Your task to perform on an android device: What's the weather going to be this weekend? Image 0: 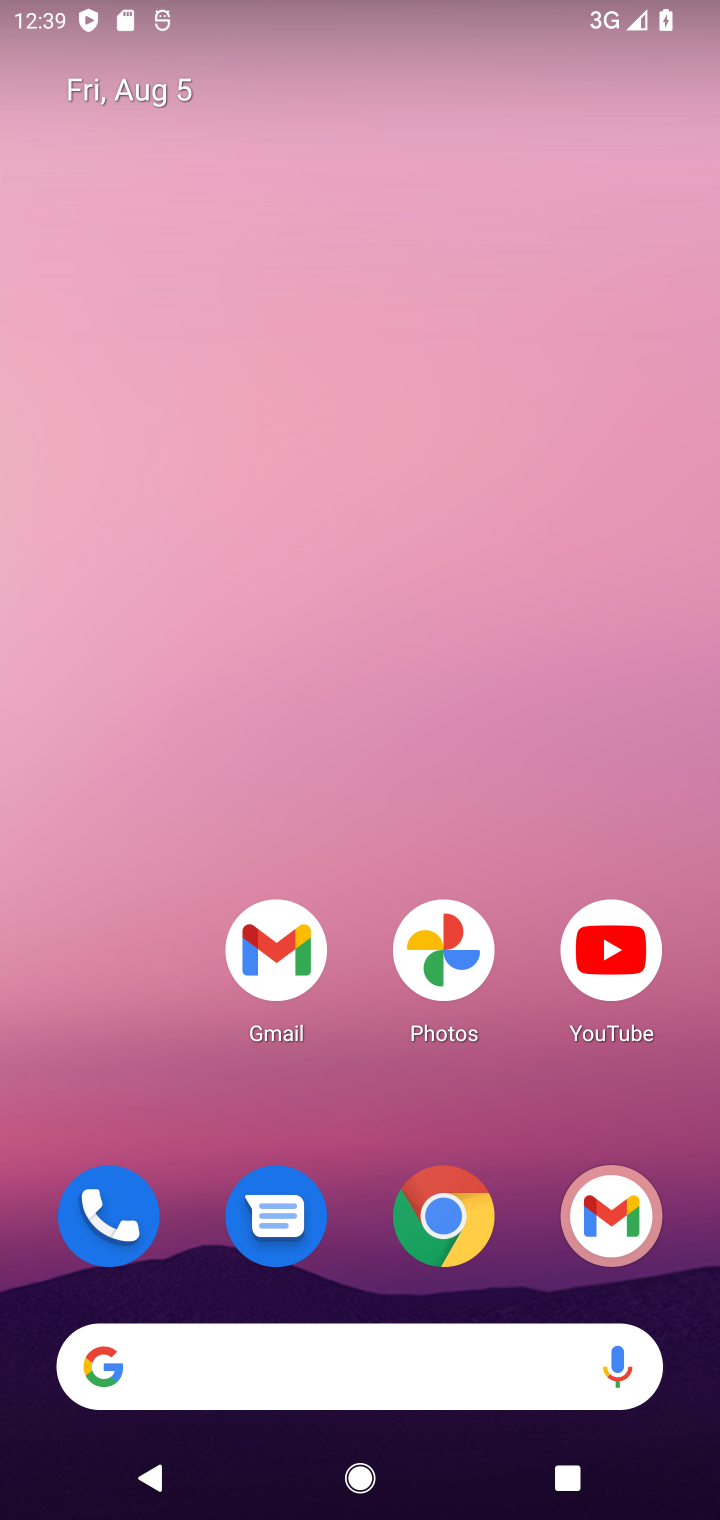
Step 0: drag from (320, 1343) to (469, 25)
Your task to perform on an android device: What's the weather going to be this weekend? Image 1: 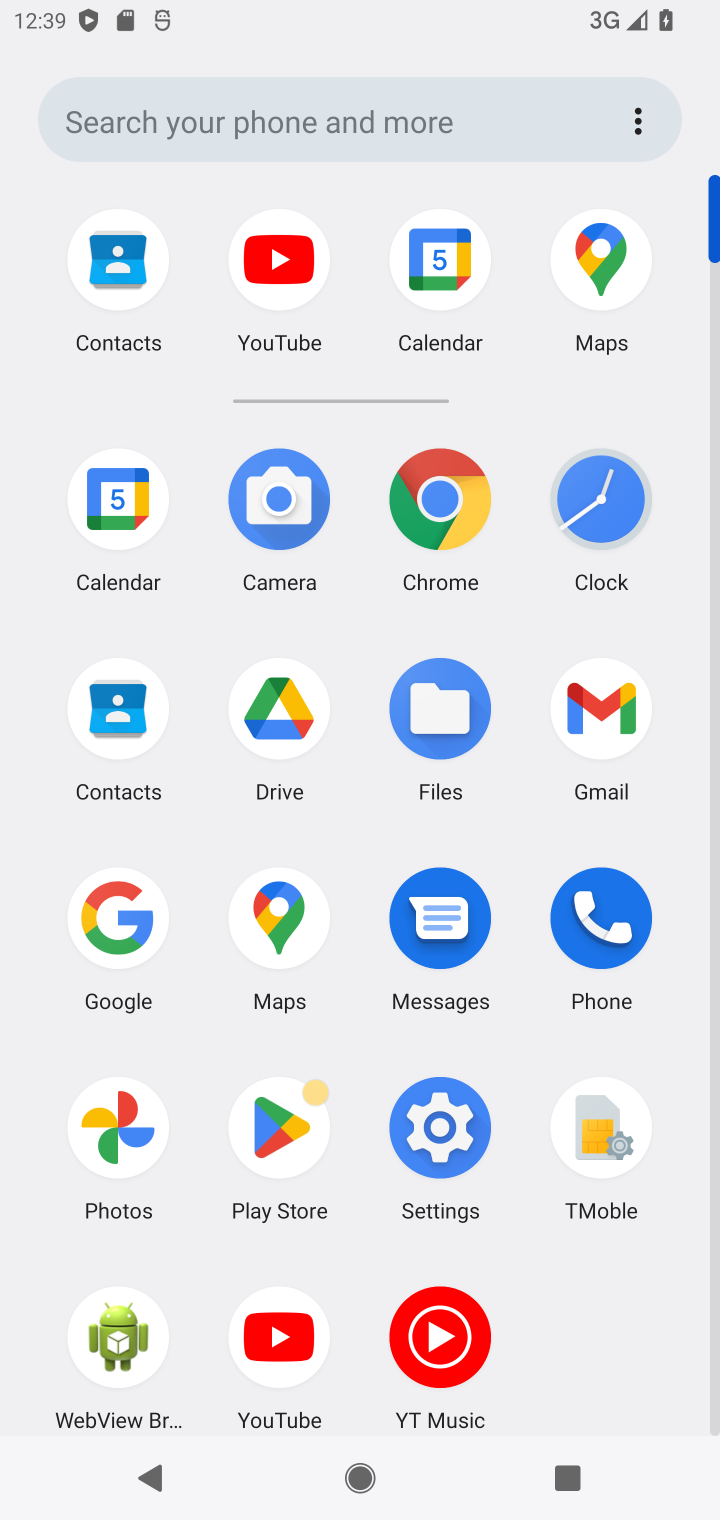
Step 1: click (431, 486)
Your task to perform on an android device: What's the weather going to be this weekend? Image 2: 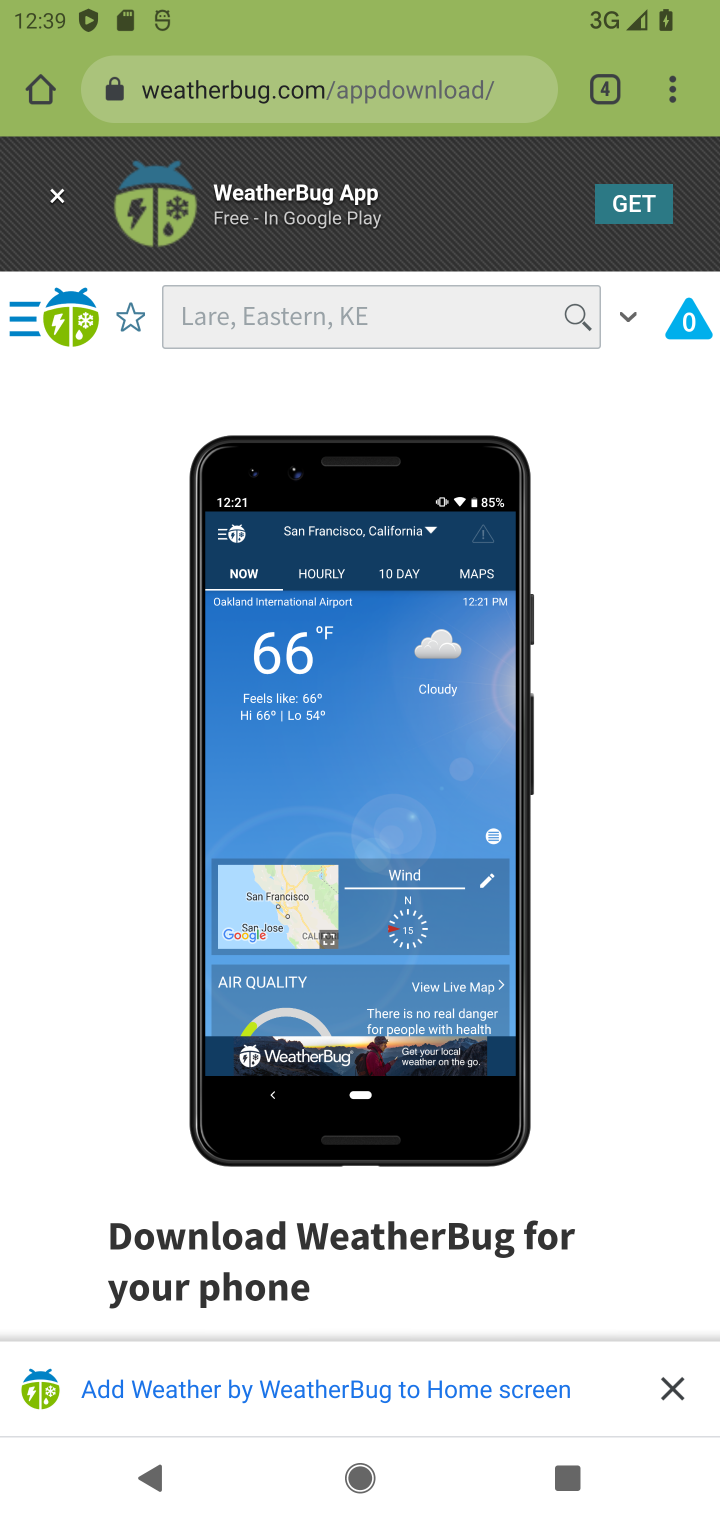
Step 2: click (278, 96)
Your task to perform on an android device: What's the weather going to be this weekend? Image 3: 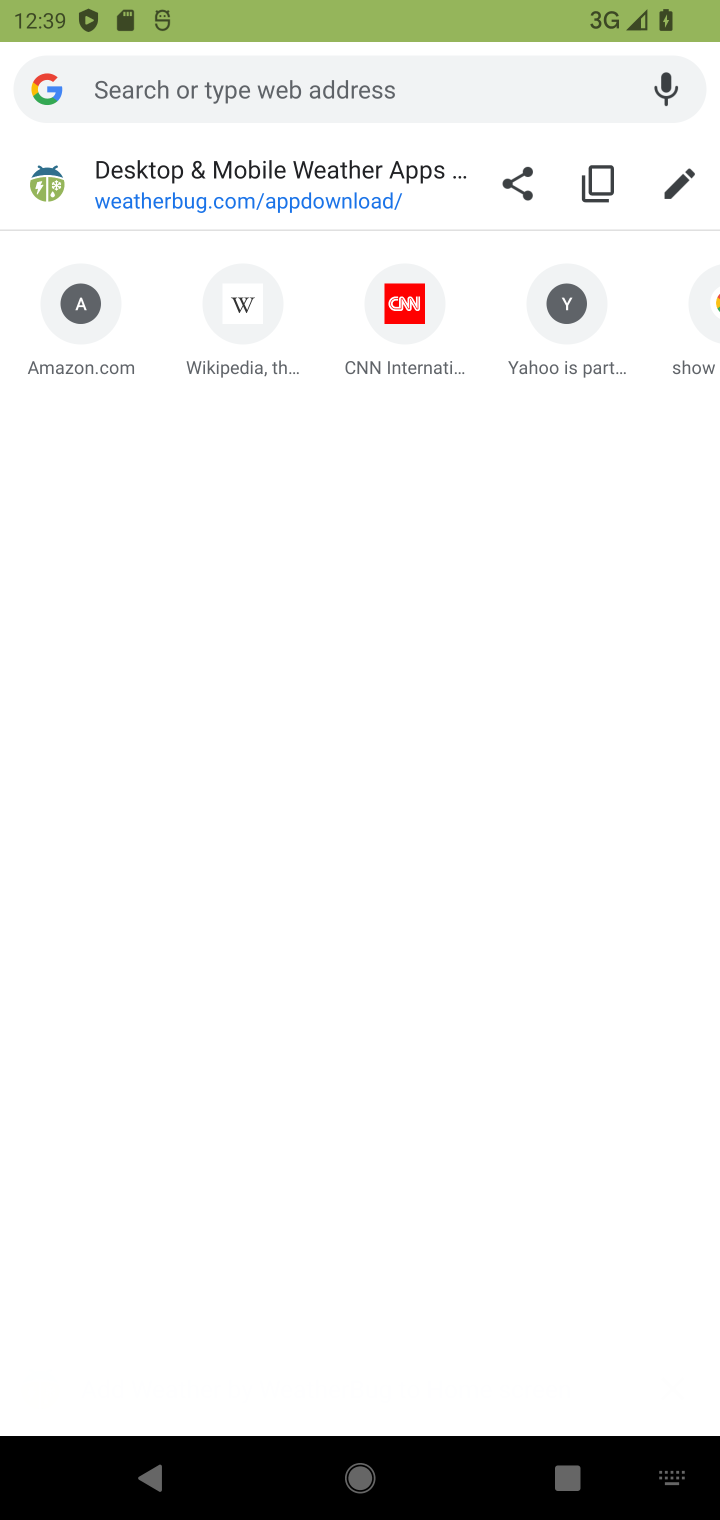
Step 3: type "weather going to be this weekend"
Your task to perform on an android device: What's the weather going to be this weekend? Image 4: 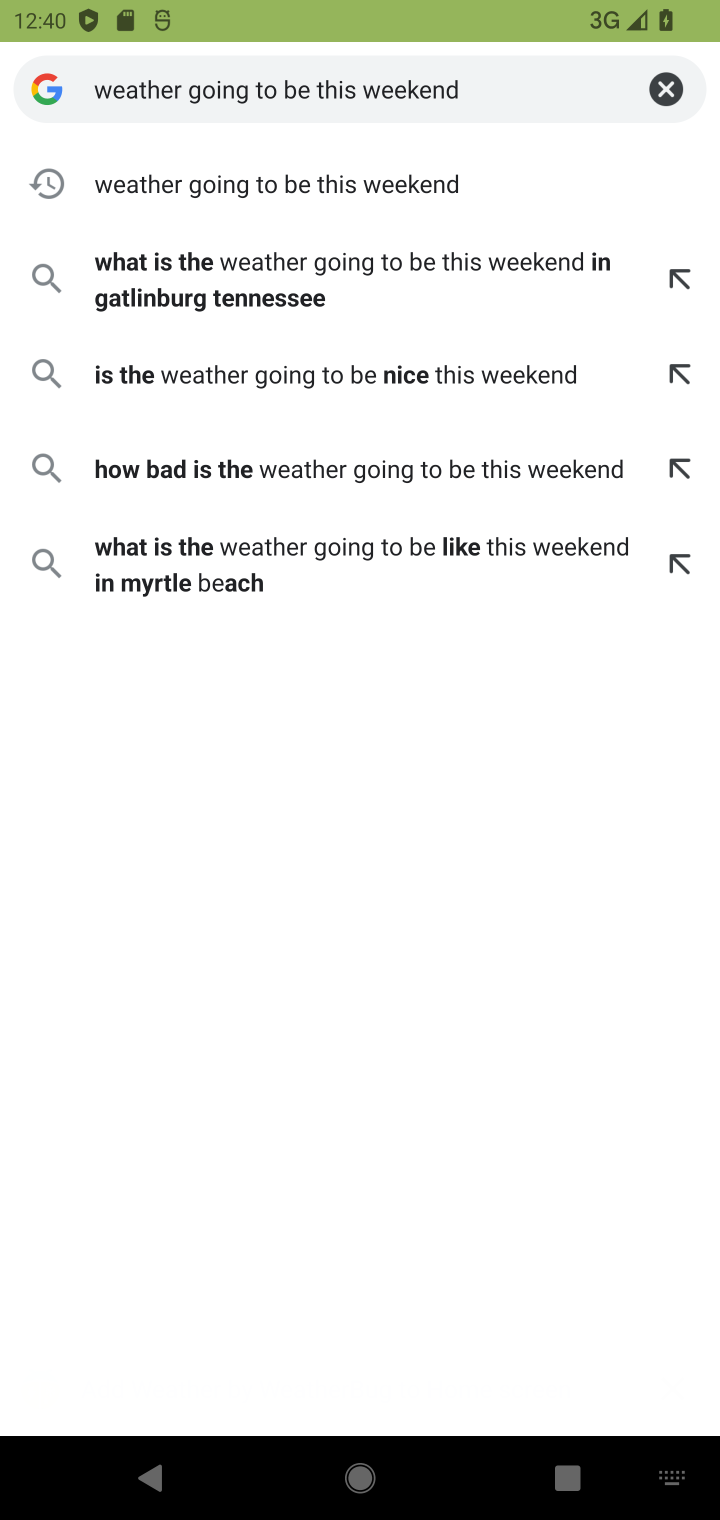
Step 4: click (281, 171)
Your task to perform on an android device: What's the weather going to be this weekend? Image 5: 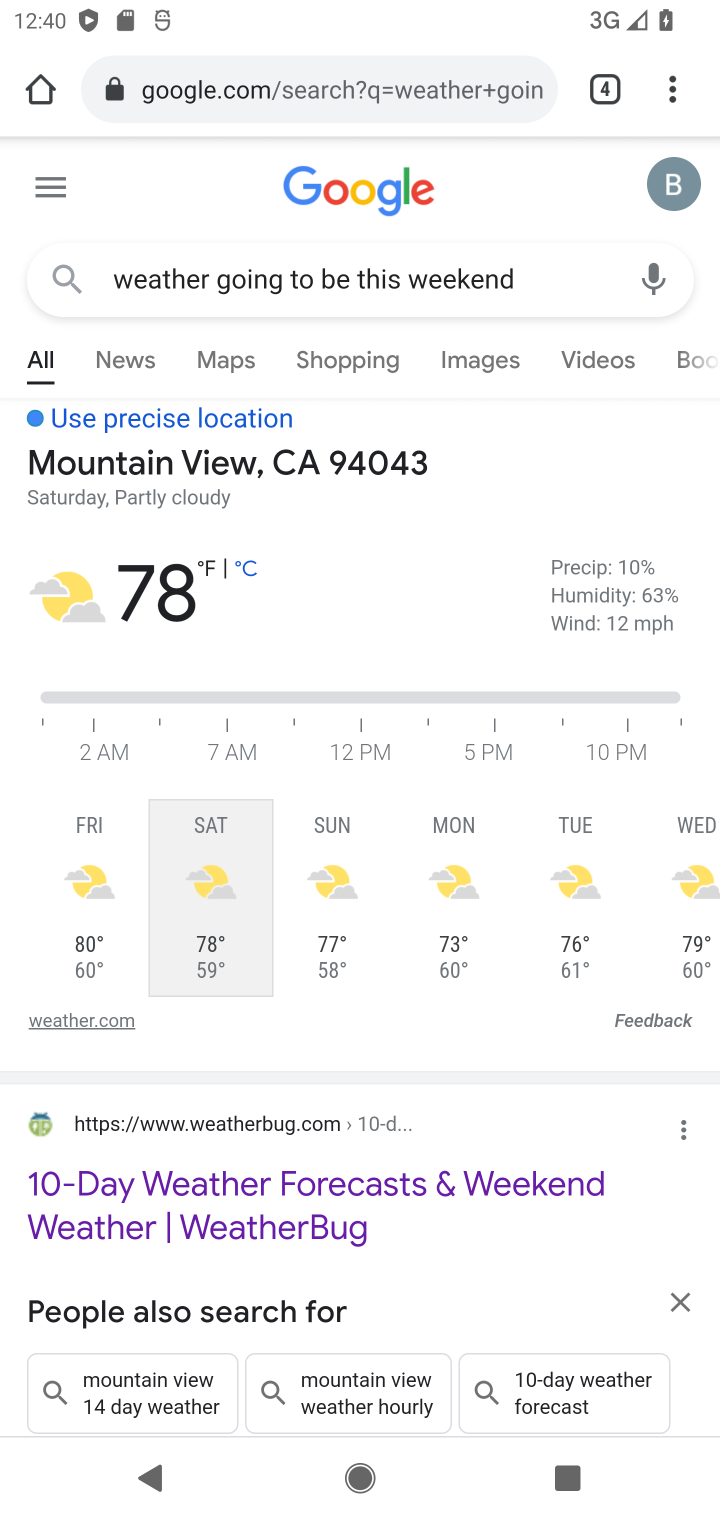
Step 5: task complete